Your task to perform on an android device: open device folders in google photos Image 0: 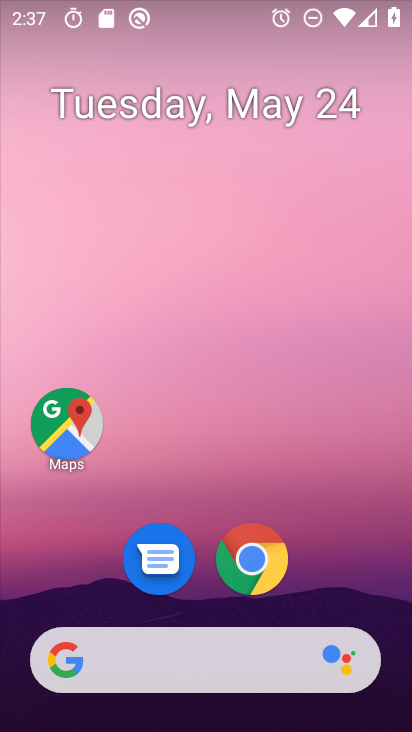
Step 0: drag from (393, 682) to (374, 237)
Your task to perform on an android device: open device folders in google photos Image 1: 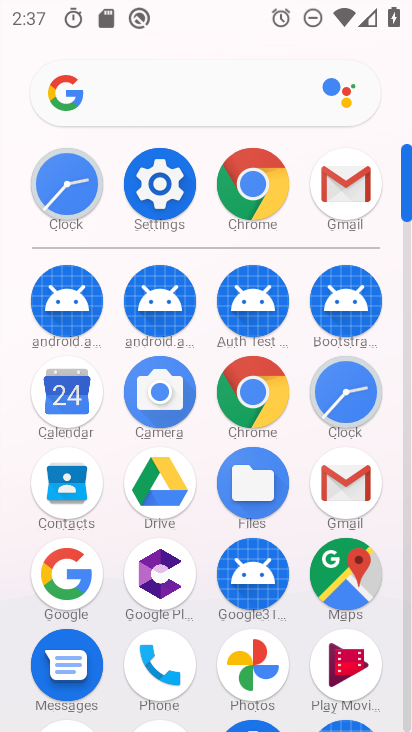
Step 1: click (256, 660)
Your task to perform on an android device: open device folders in google photos Image 2: 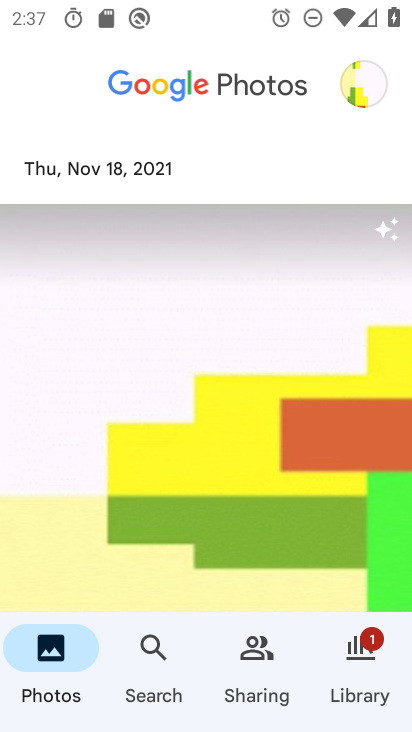
Step 2: task complete